Your task to perform on an android device: Open notification settings Image 0: 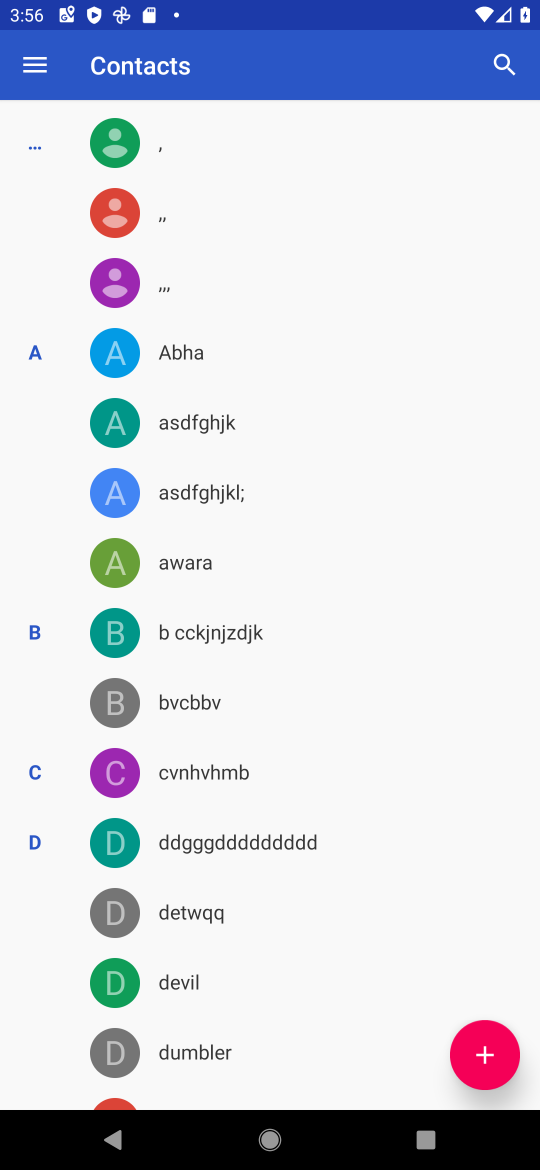
Step 0: press home button
Your task to perform on an android device: Open notification settings Image 1: 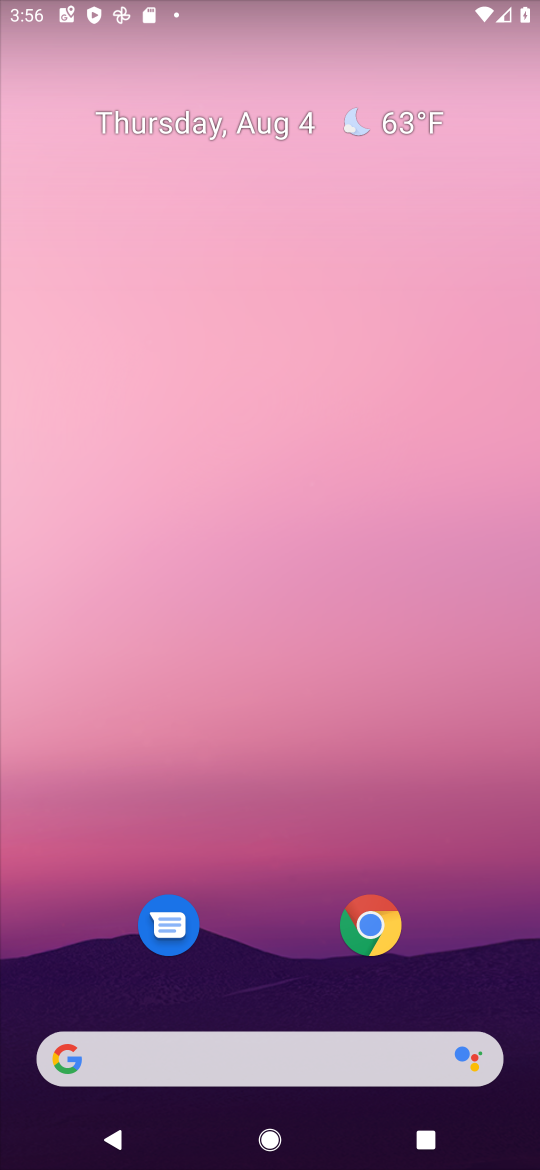
Step 1: drag from (253, 934) to (49, 159)
Your task to perform on an android device: Open notification settings Image 2: 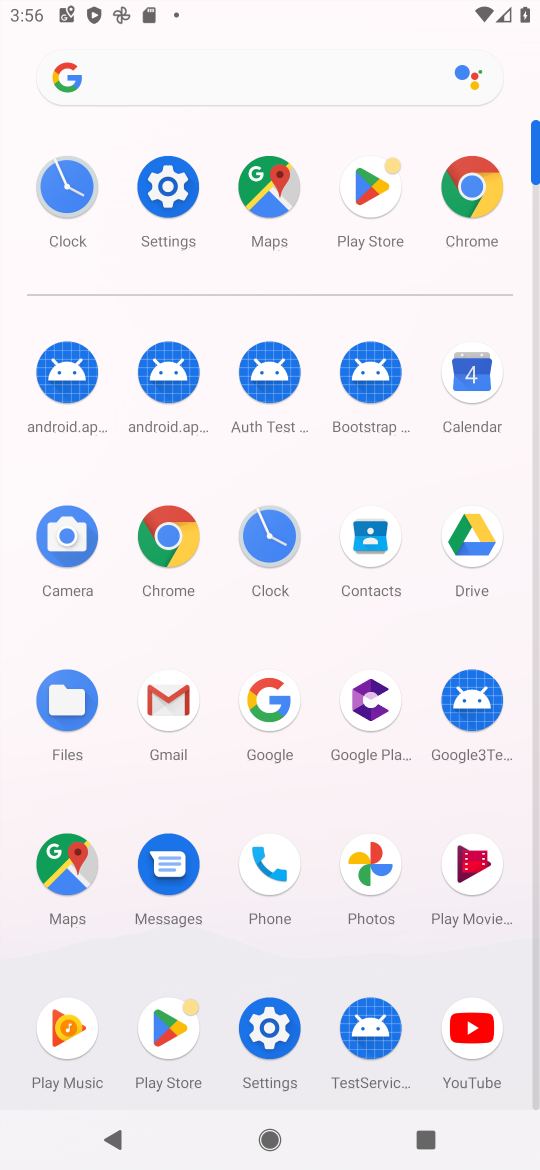
Step 2: click (275, 1032)
Your task to perform on an android device: Open notification settings Image 3: 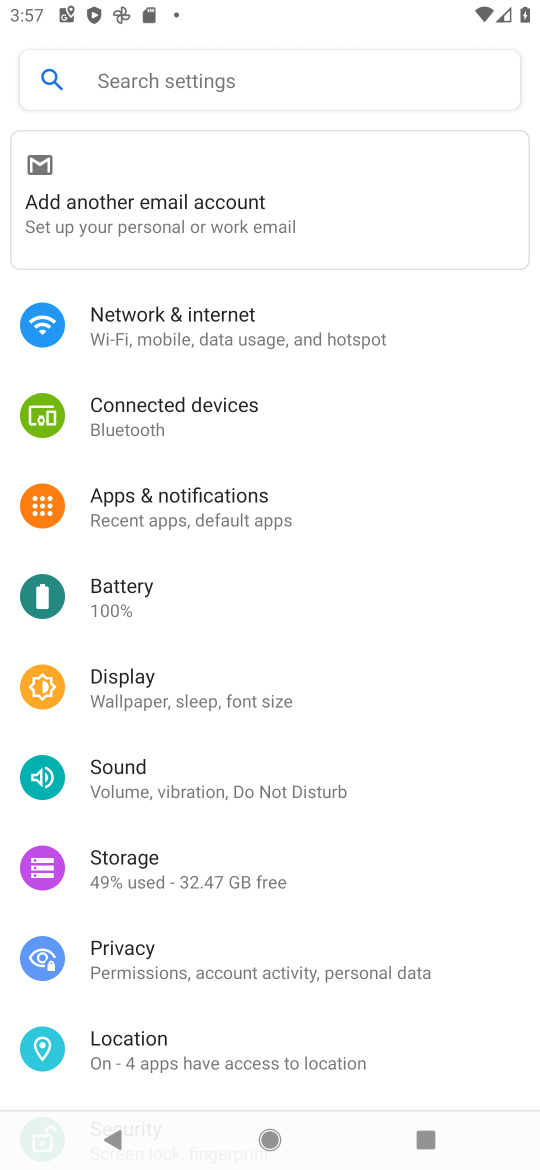
Step 3: click (174, 518)
Your task to perform on an android device: Open notification settings Image 4: 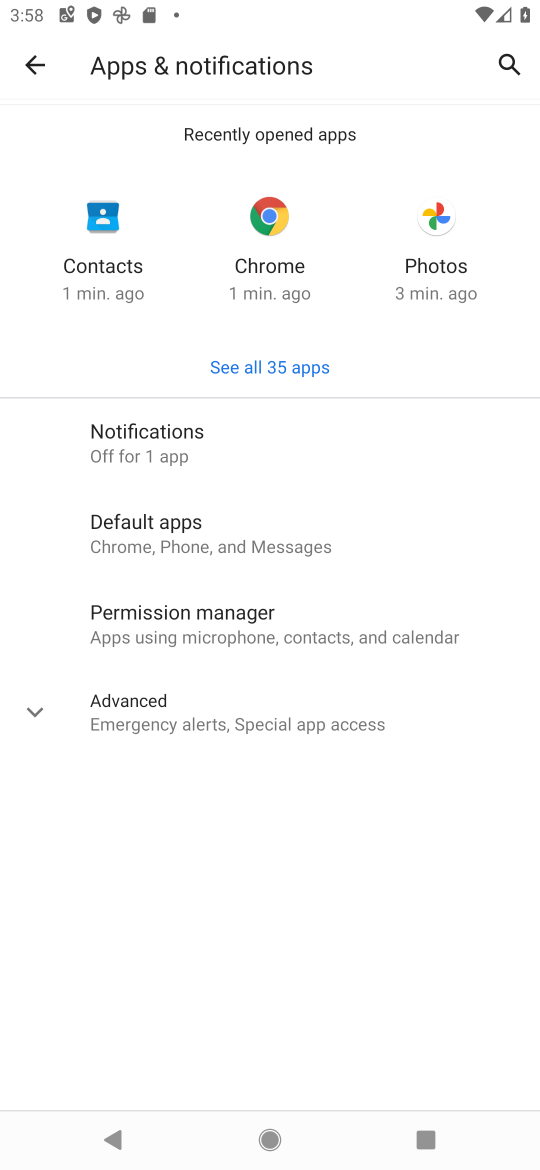
Step 4: task complete